Your task to perform on an android device: turn on translation in the chrome app Image 0: 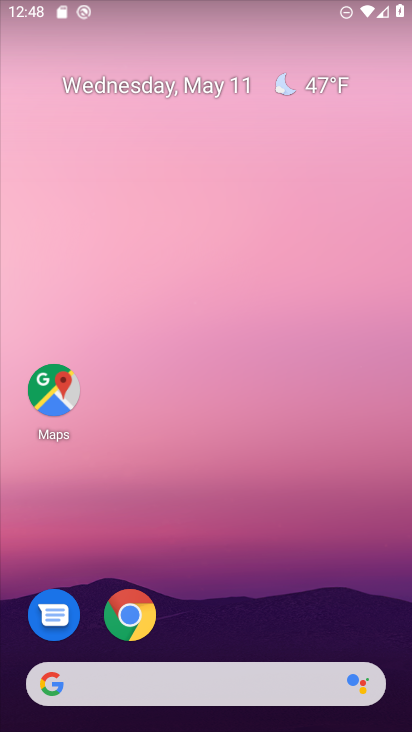
Step 0: click (127, 626)
Your task to perform on an android device: turn on translation in the chrome app Image 1: 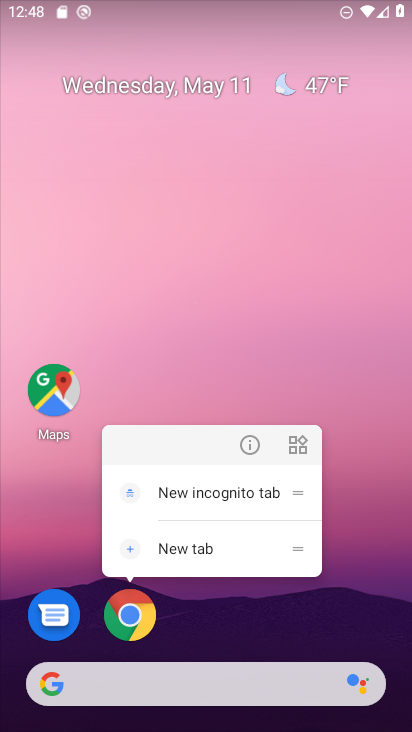
Step 1: click (127, 627)
Your task to perform on an android device: turn on translation in the chrome app Image 2: 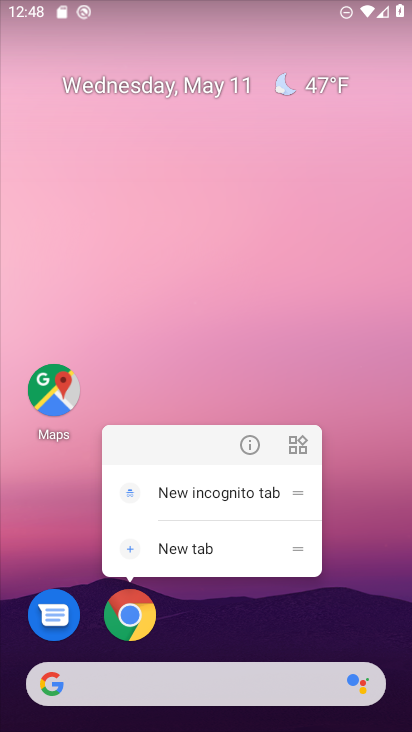
Step 2: drag from (336, 0) to (319, 41)
Your task to perform on an android device: turn on translation in the chrome app Image 3: 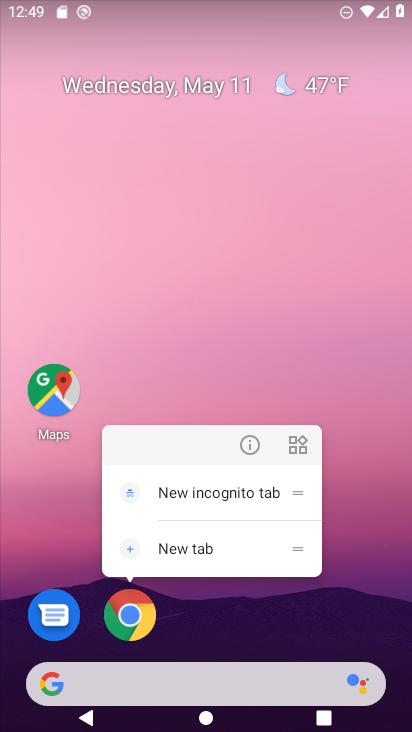
Step 3: click (333, 631)
Your task to perform on an android device: turn on translation in the chrome app Image 4: 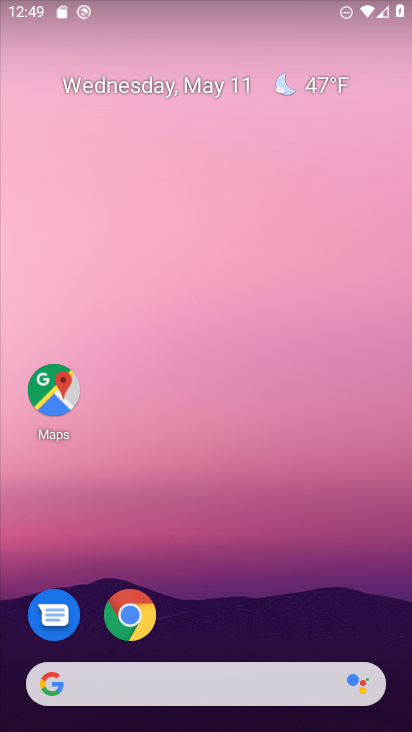
Step 4: drag from (228, 615) to (247, 32)
Your task to perform on an android device: turn on translation in the chrome app Image 5: 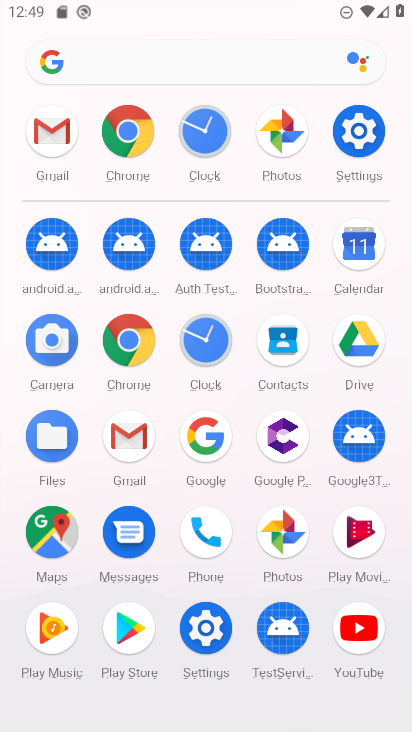
Step 5: click (124, 132)
Your task to perform on an android device: turn on translation in the chrome app Image 6: 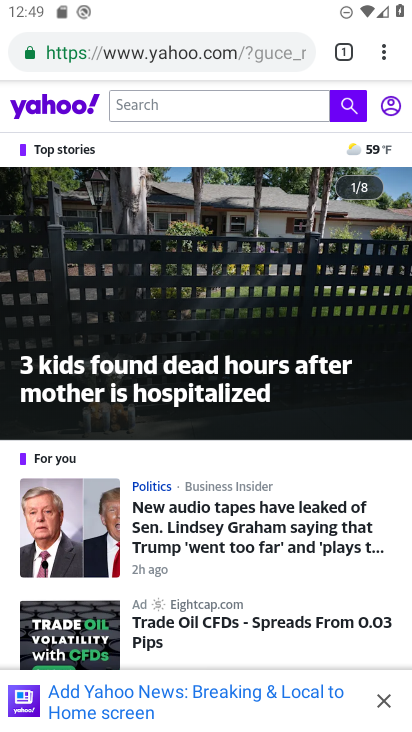
Step 6: drag from (393, 58) to (223, 631)
Your task to perform on an android device: turn on translation in the chrome app Image 7: 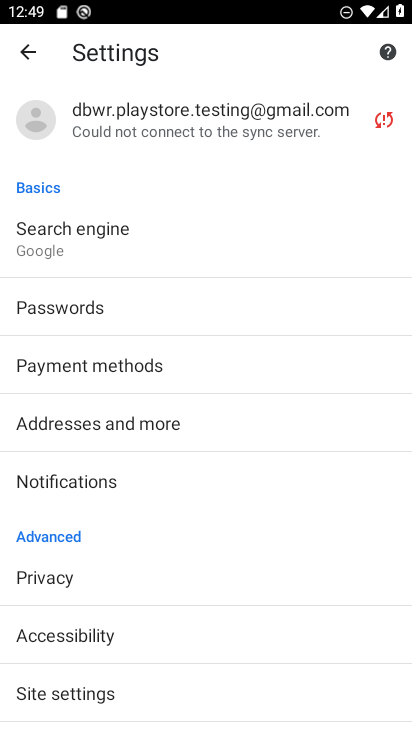
Step 7: drag from (183, 590) to (258, 172)
Your task to perform on an android device: turn on translation in the chrome app Image 8: 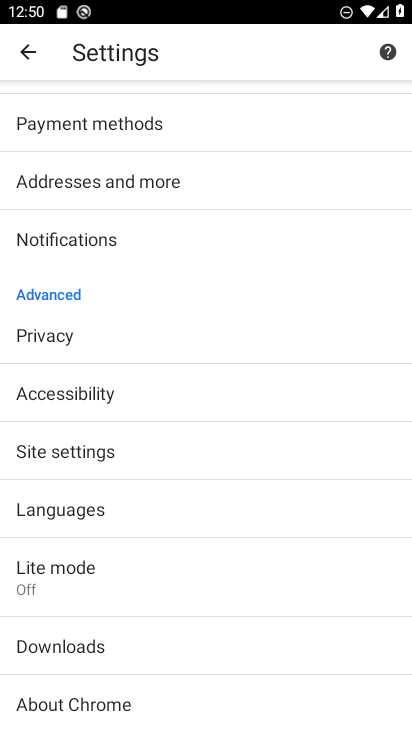
Step 8: drag from (93, 554) to (137, 179)
Your task to perform on an android device: turn on translation in the chrome app Image 9: 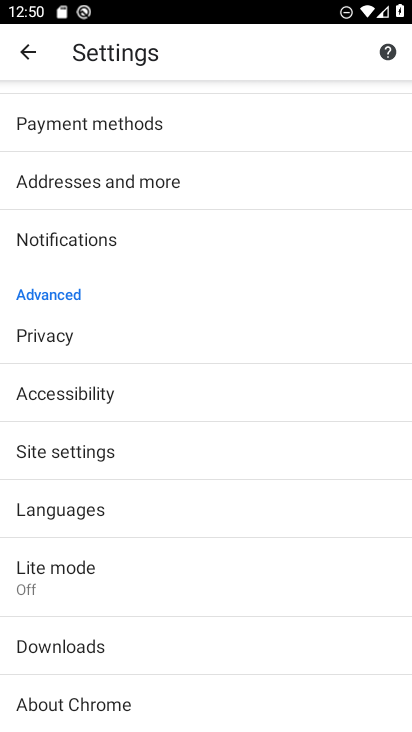
Step 9: drag from (138, 560) to (163, 348)
Your task to perform on an android device: turn on translation in the chrome app Image 10: 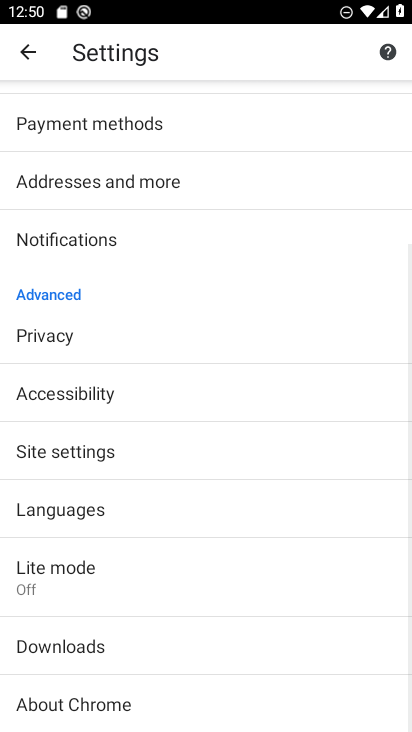
Step 10: click (52, 522)
Your task to perform on an android device: turn on translation in the chrome app Image 11: 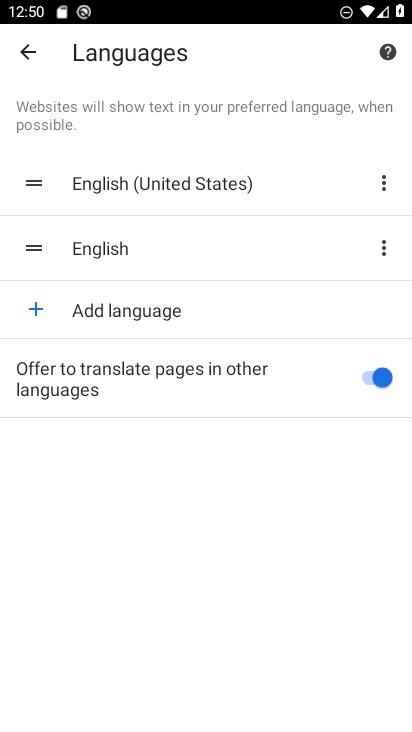
Step 11: task complete